Your task to perform on an android device: turn off notifications in google photos Image 0: 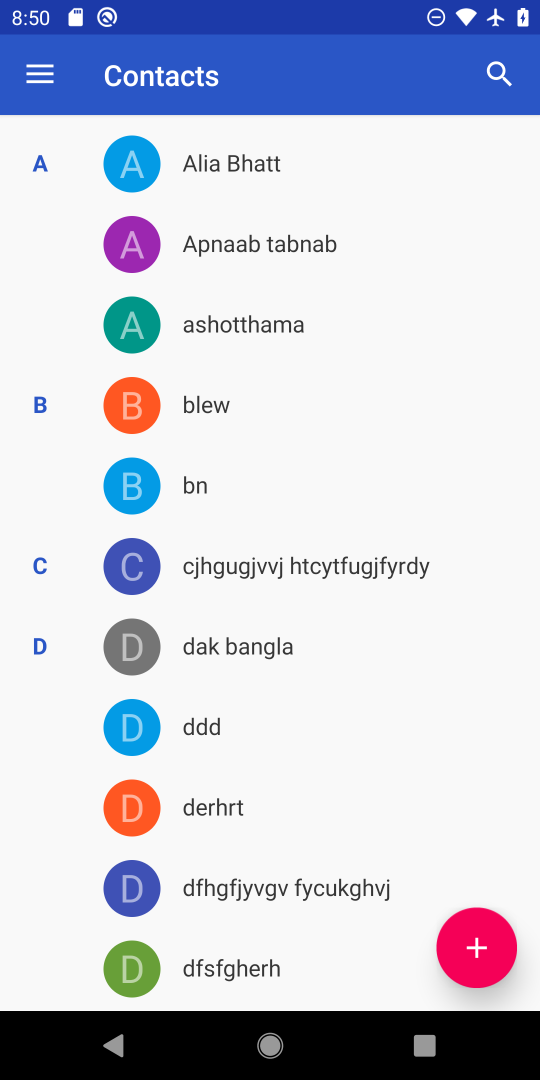
Step 0: press home button
Your task to perform on an android device: turn off notifications in google photos Image 1: 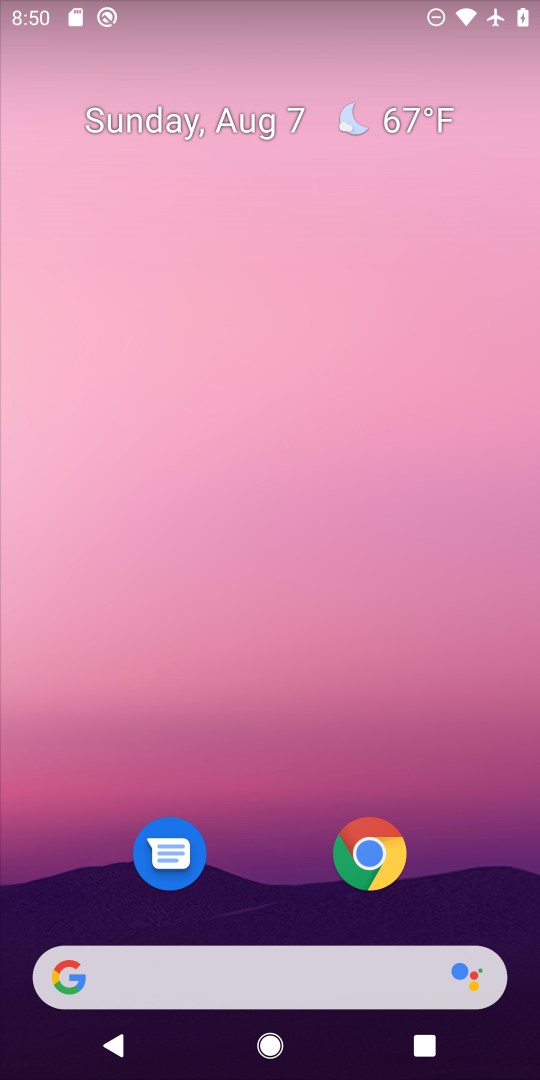
Step 1: drag from (344, 986) to (351, 137)
Your task to perform on an android device: turn off notifications in google photos Image 2: 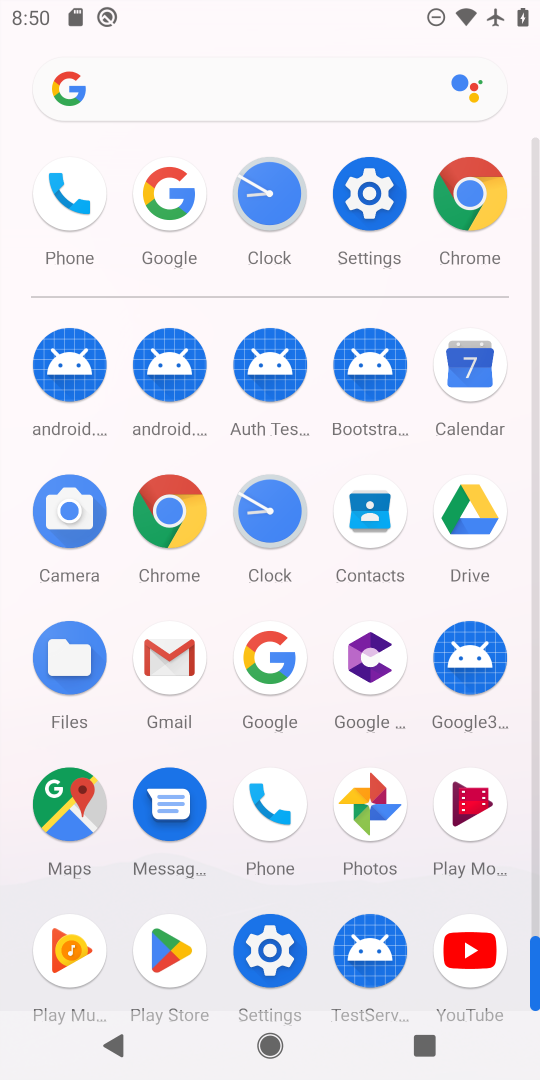
Step 2: click (369, 809)
Your task to perform on an android device: turn off notifications in google photos Image 3: 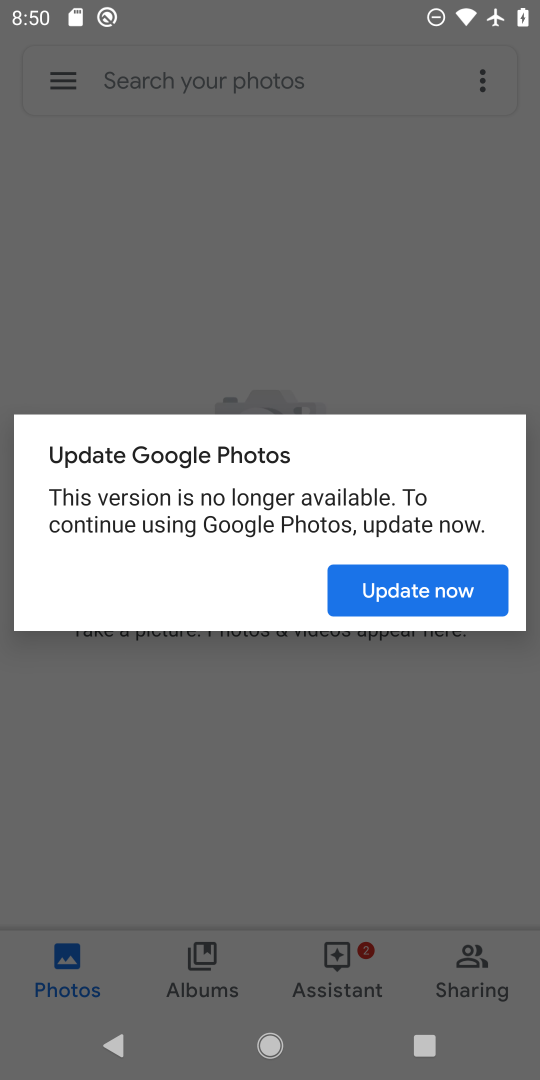
Step 3: task complete